Your task to perform on an android device: Go to ESPN.com Image 0: 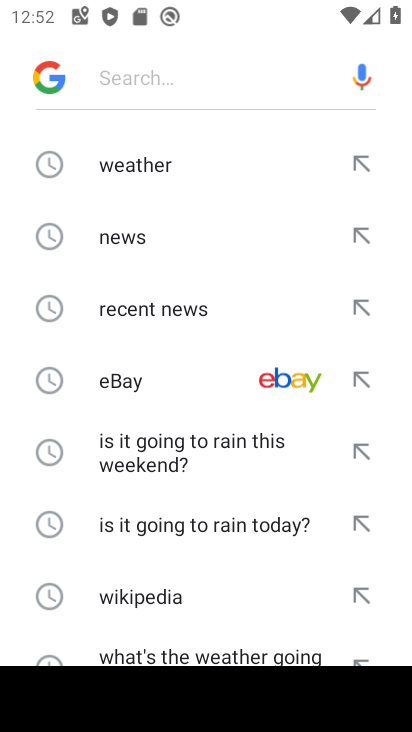
Step 0: press home button
Your task to perform on an android device: Go to ESPN.com Image 1: 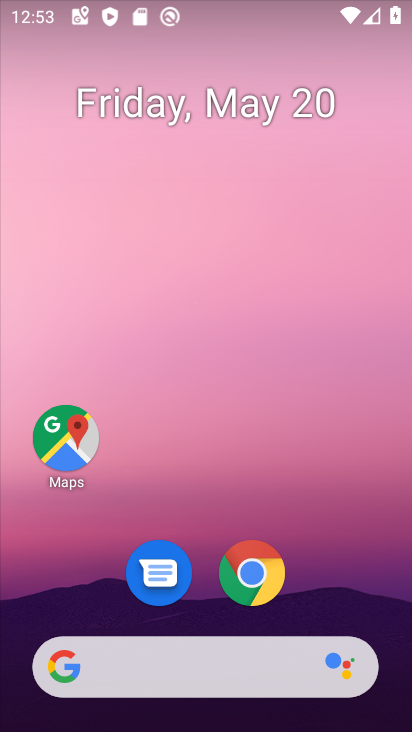
Step 1: click (251, 575)
Your task to perform on an android device: Go to ESPN.com Image 2: 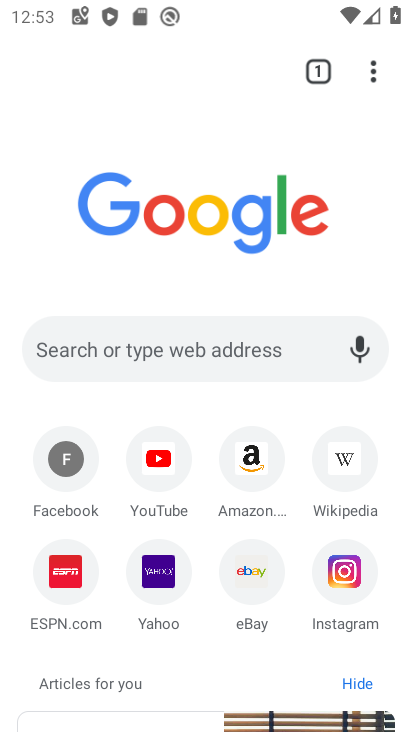
Step 2: click (59, 574)
Your task to perform on an android device: Go to ESPN.com Image 3: 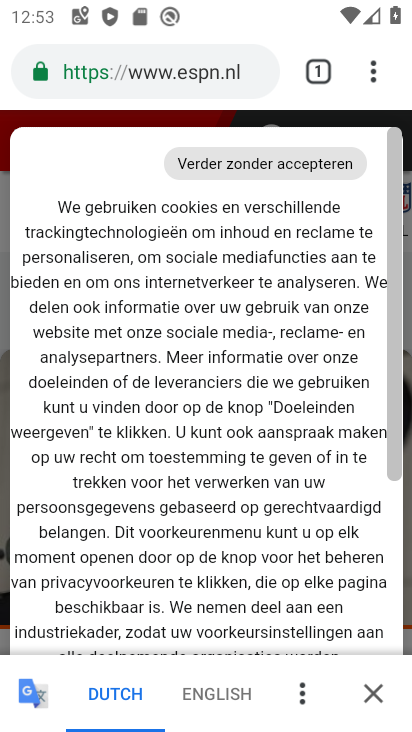
Step 3: drag from (211, 575) to (209, 258)
Your task to perform on an android device: Go to ESPN.com Image 4: 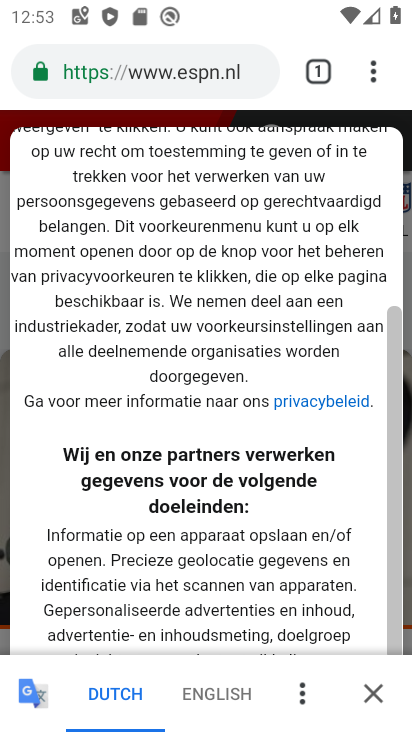
Step 4: drag from (251, 609) to (255, 299)
Your task to perform on an android device: Go to ESPN.com Image 5: 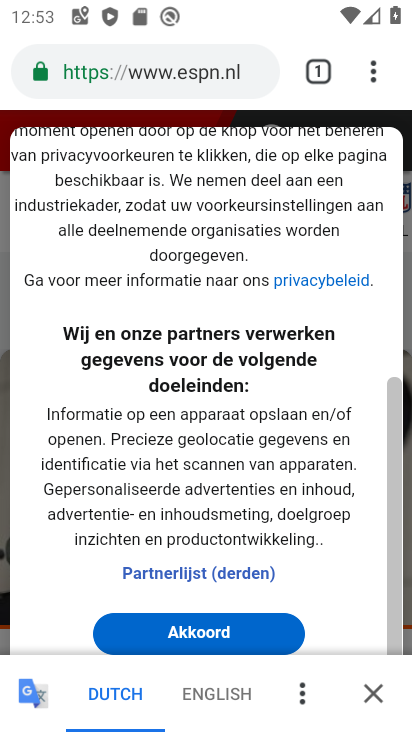
Step 5: click (210, 632)
Your task to perform on an android device: Go to ESPN.com Image 6: 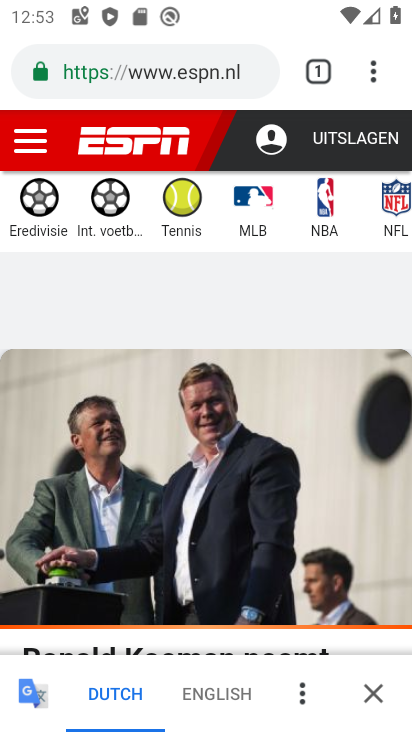
Step 6: task complete